Your task to perform on an android device: turn on javascript in the chrome app Image 0: 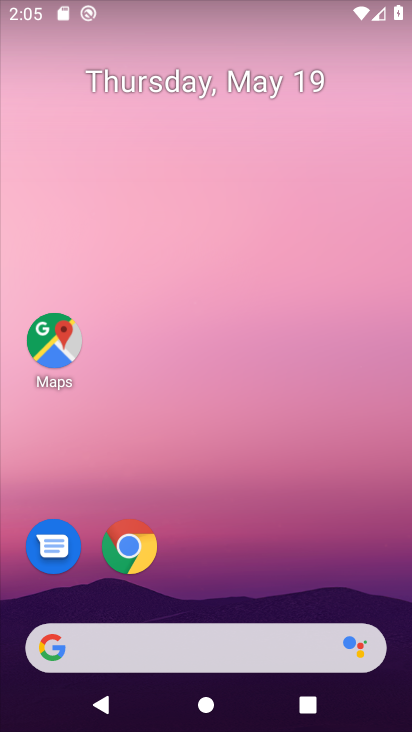
Step 0: click (129, 540)
Your task to perform on an android device: turn on javascript in the chrome app Image 1: 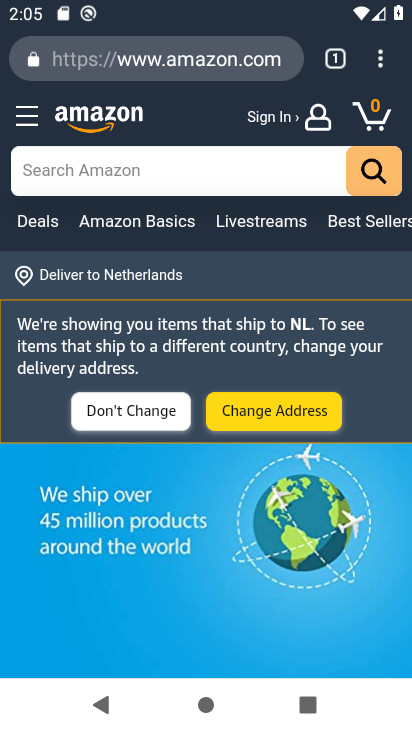
Step 1: click (376, 57)
Your task to perform on an android device: turn on javascript in the chrome app Image 2: 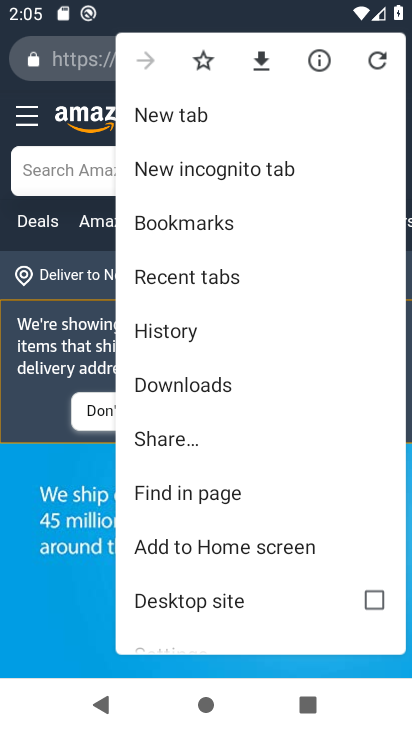
Step 2: drag from (251, 523) to (307, 118)
Your task to perform on an android device: turn on javascript in the chrome app Image 3: 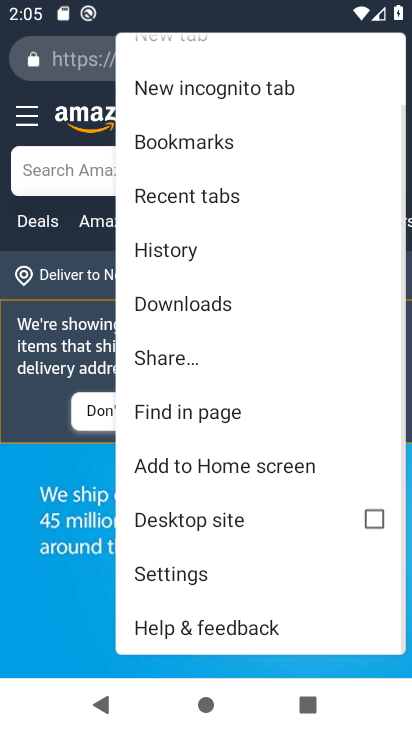
Step 3: click (208, 573)
Your task to perform on an android device: turn on javascript in the chrome app Image 4: 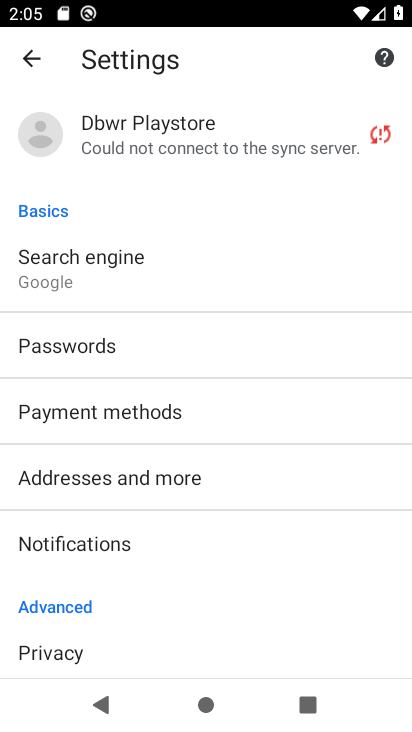
Step 4: drag from (135, 574) to (218, 91)
Your task to perform on an android device: turn on javascript in the chrome app Image 5: 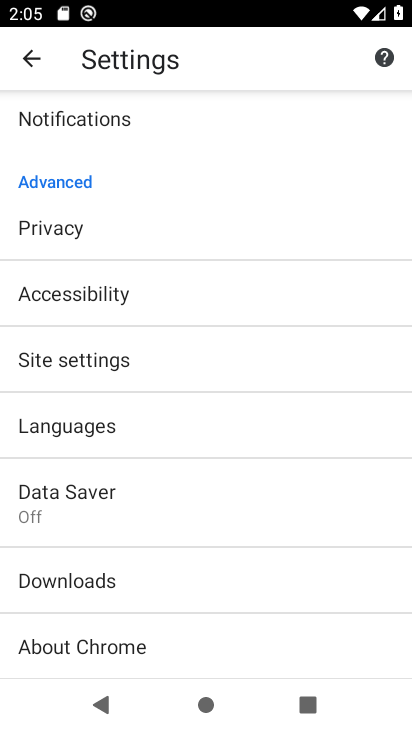
Step 5: click (160, 364)
Your task to perform on an android device: turn on javascript in the chrome app Image 6: 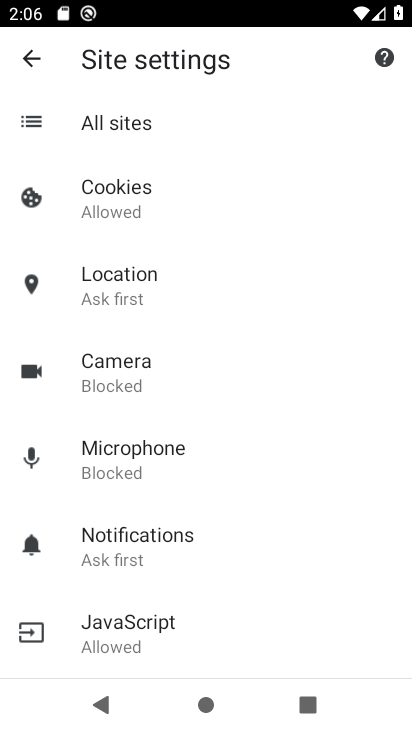
Step 6: click (175, 633)
Your task to perform on an android device: turn on javascript in the chrome app Image 7: 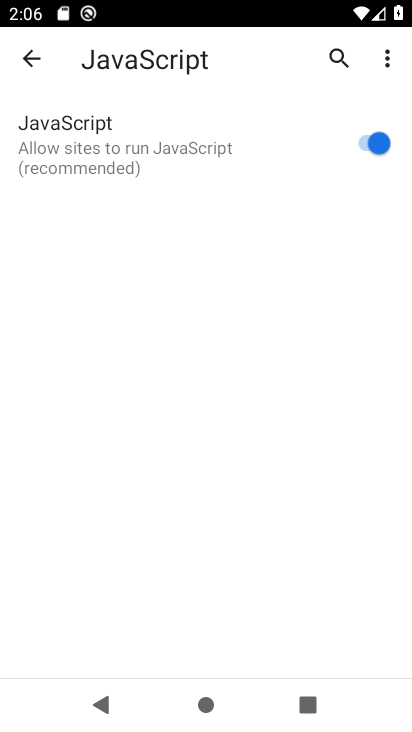
Step 7: task complete